Your task to perform on an android device: add a contact Image 0: 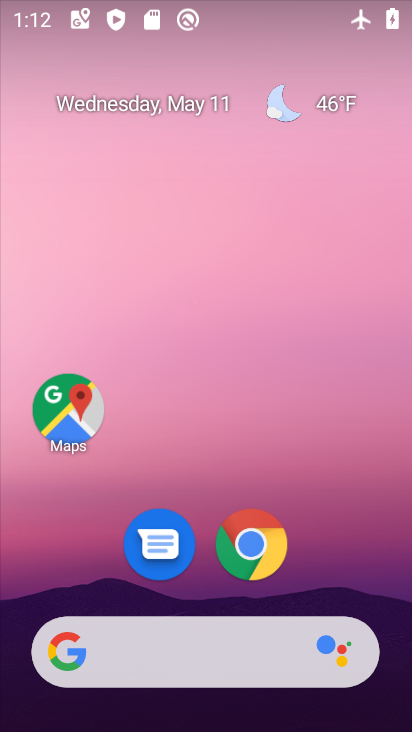
Step 0: drag from (391, 636) to (282, 0)
Your task to perform on an android device: add a contact Image 1: 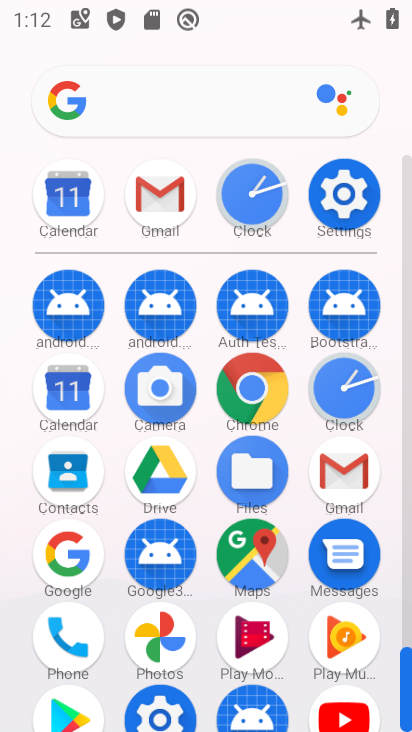
Step 1: click (68, 473)
Your task to perform on an android device: add a contact Image 2: 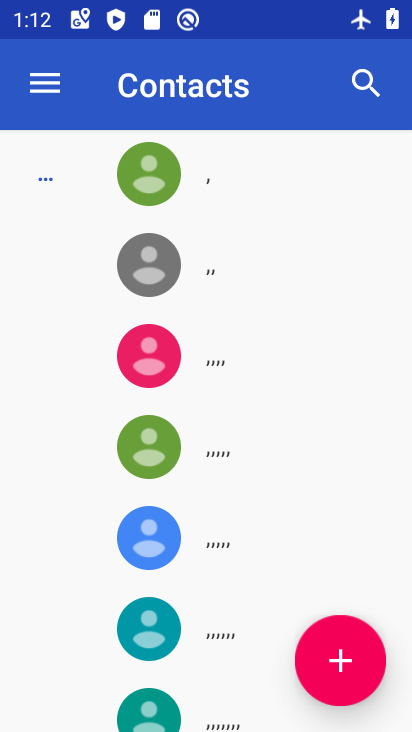
Step 2: click (343, 659)
Your task to perform on an android device: add a contact Image 3: 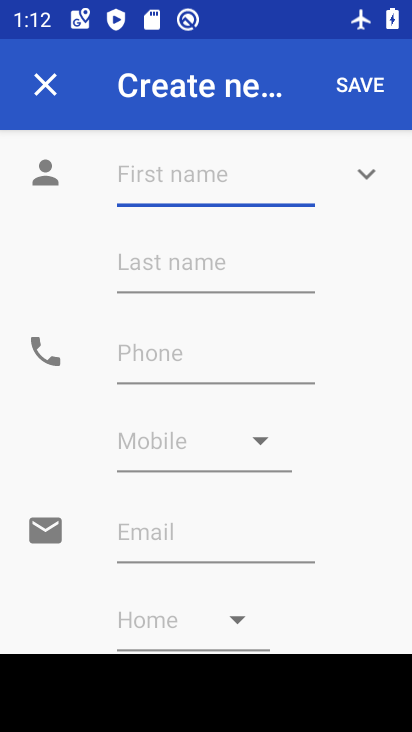
Step 3: type "hfdsjj"
Your task to perform on an android device: add a contact Image 4: 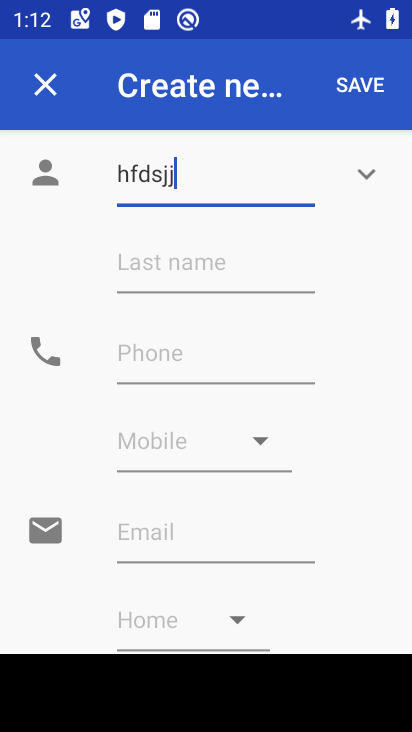
Step 4: click (173, 361)
Your task to perform on an android device: add a contact Image 5: 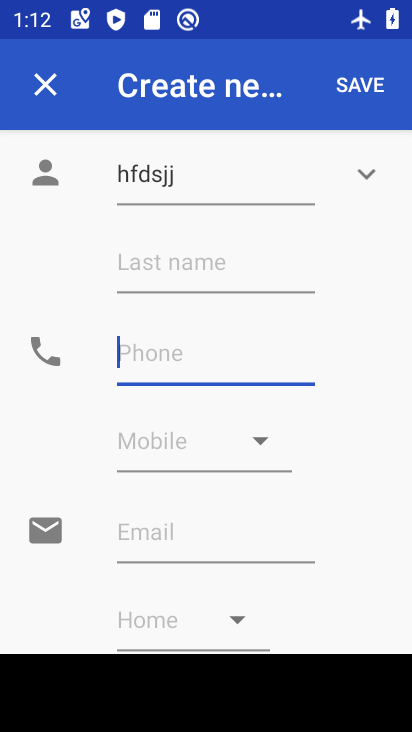
Step 5: type "975746355"
Your task to perform on an android device: add a contact Image 6: 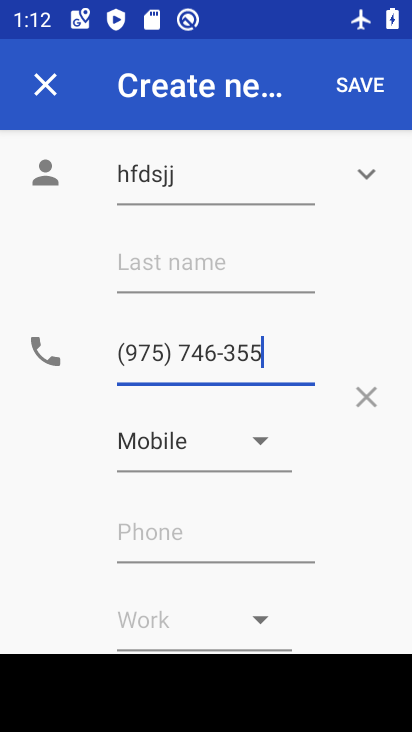
Step 6: click (263, 447)
Your task to perform on an android device: add a contact Image 7: 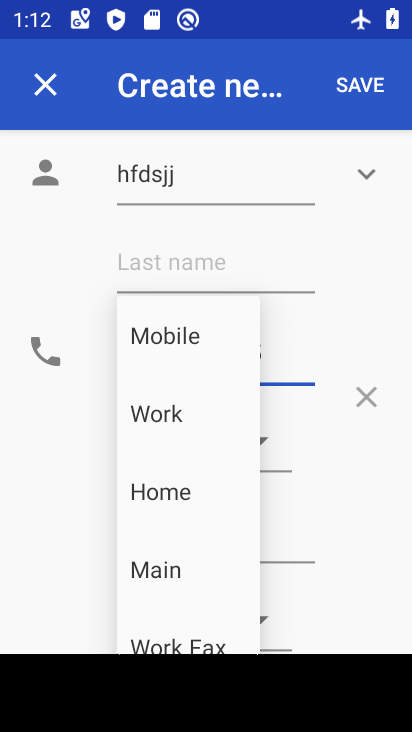
Step 7: click (157, 424)
Your task to perform on an android device: add a contact Image 8: 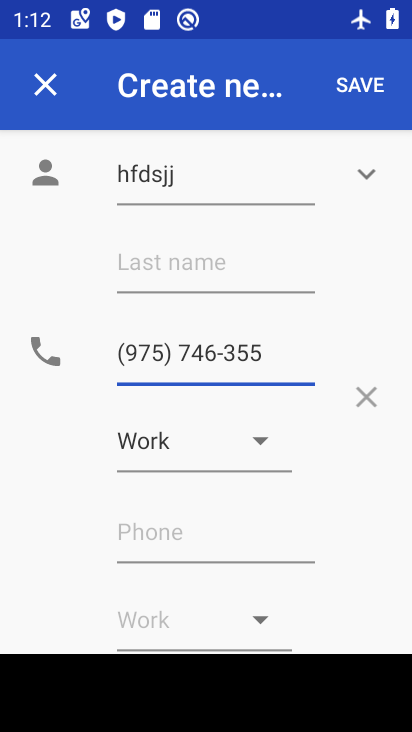
Step 8: click (358, 87)
Your task to perform on an android device: add a contact Image 9: 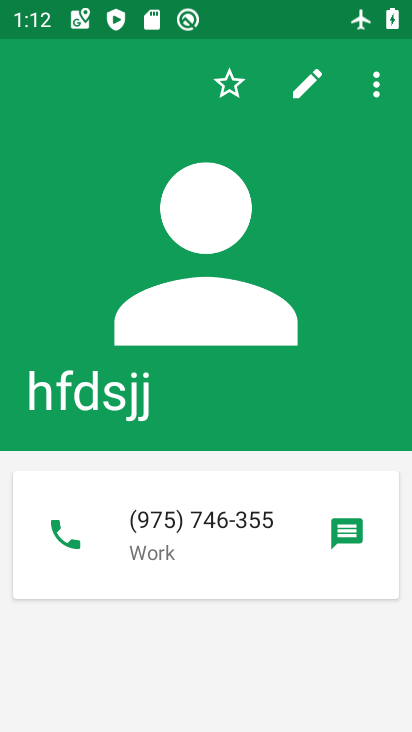
Step 9: task complete